Your task to perform on an android device: turn off notifications settings in the gmail app Image 0: 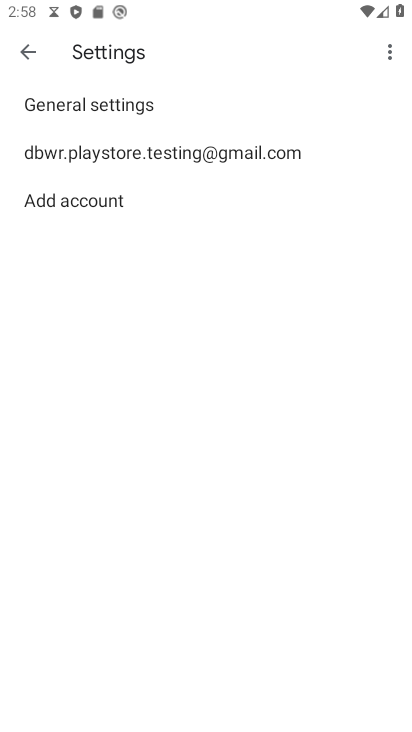
Step 0: drag from (190, 606) to (273, 12)
Your task to perform on an android device: turn off notifications settings in the gmail app Image 1: 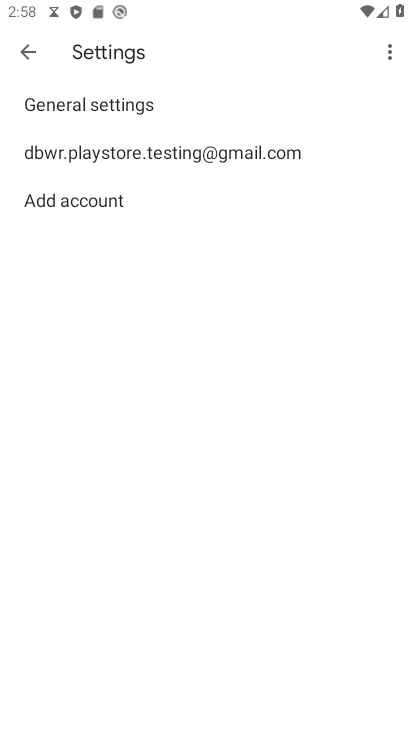
Step 1: click (20, 46)
Your task to perform on an android device: turn off notifications settings in the gmail app Image 2: 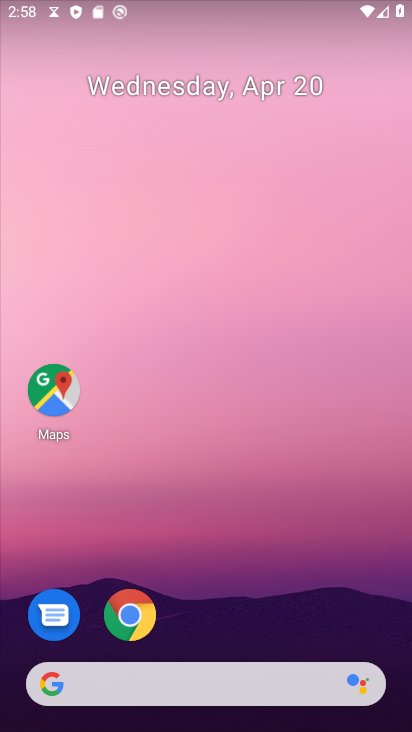
Step 2: drag from (181, 612) to (274, 208)
Your task to perform on an android device: turn off notifications settings in the gmail app Image 3: 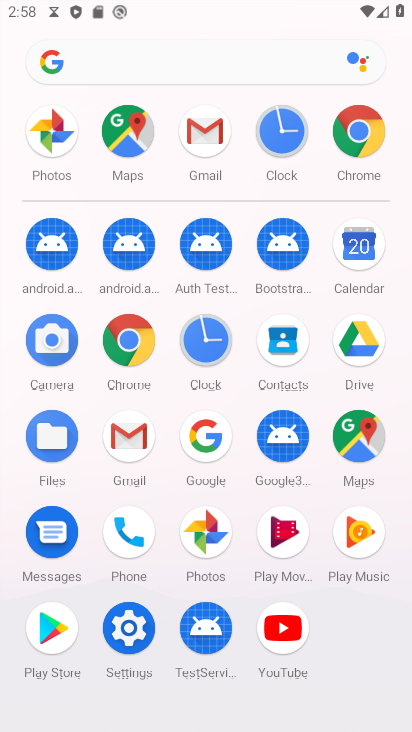
Step 3: click (131, 446)
Your task to perform on an android device: turn off notifications settings in the gmail app Image 4: 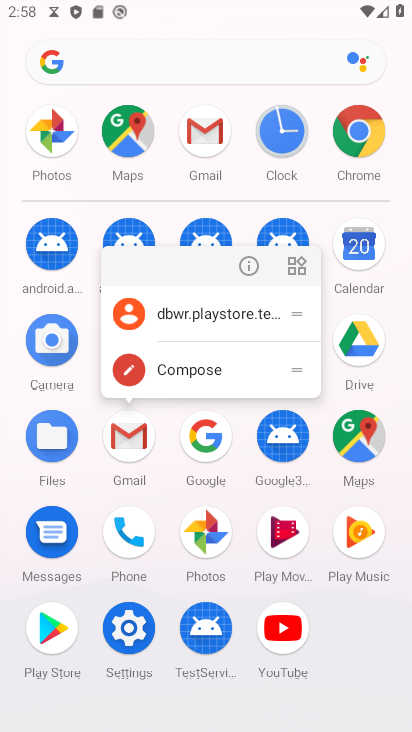
Step 4: click (258, 268)
Your task to perform on an android device: turn off notifications settings in the gmail app Image 5: 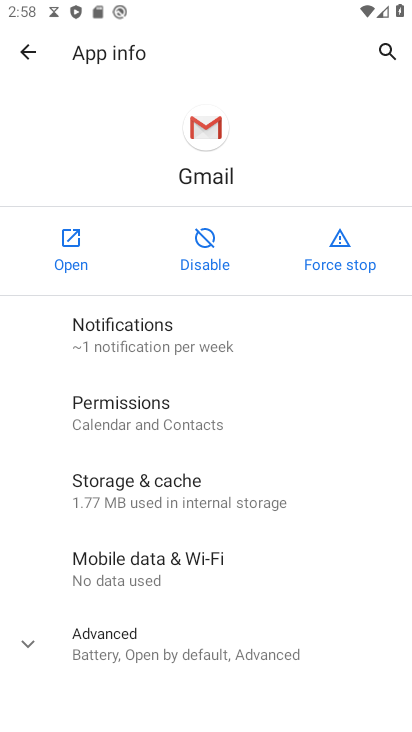
Step 5: click (67, 240)
Your task to perform on an android device: turn off notifications settings in the gmail app Image 6: 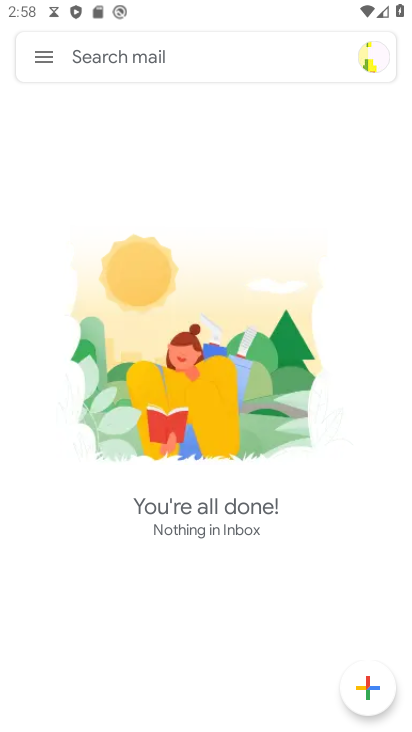
Step 6: click (46, 53)
Your task to perform on an android device: turn off notifications settings in the gmail app Image 7: 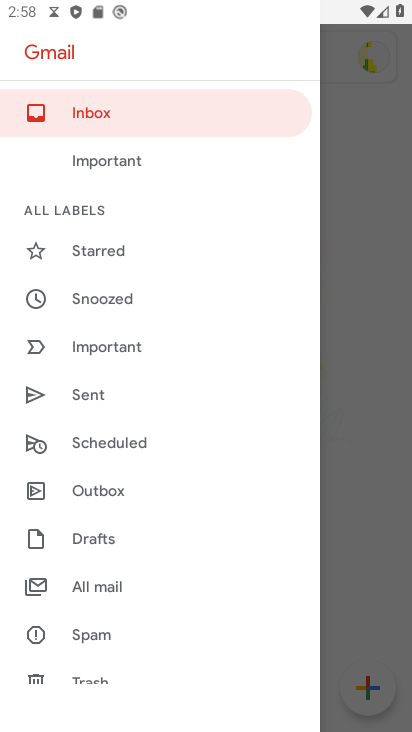
Step 7: drag from (152, 589) to (215, 150)
Your task to perform on an android device: turn off notifications settings in the gmail app Image 8: 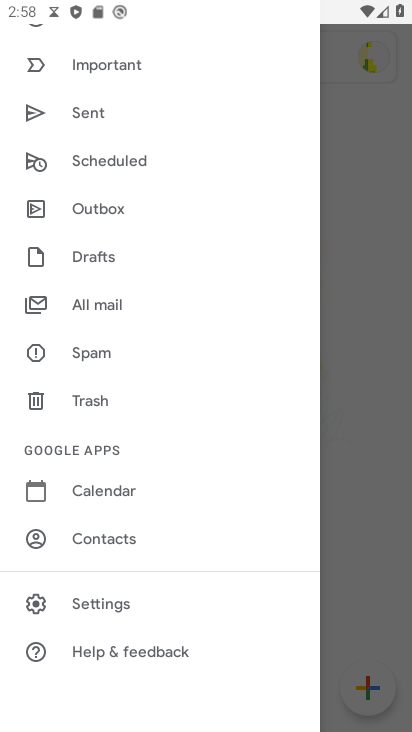
Step 8: click (97, 603)
Your task to perform on an android device: turn off notifications settings in the gmail app Image 9: 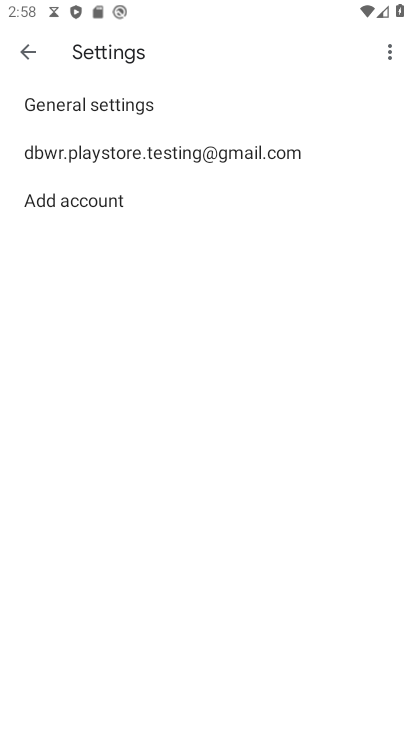
Step 9: click (194, 160)
Your task to perform on an android device: turn off notifications settings in the gmail app Image 10: 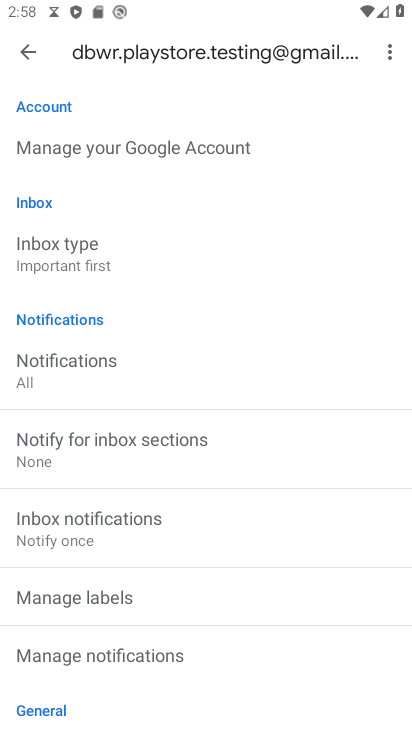
Step 10: click (122, 645)
Your task to perform on an android device: turn off notifications settings in the gmail app Image 11: 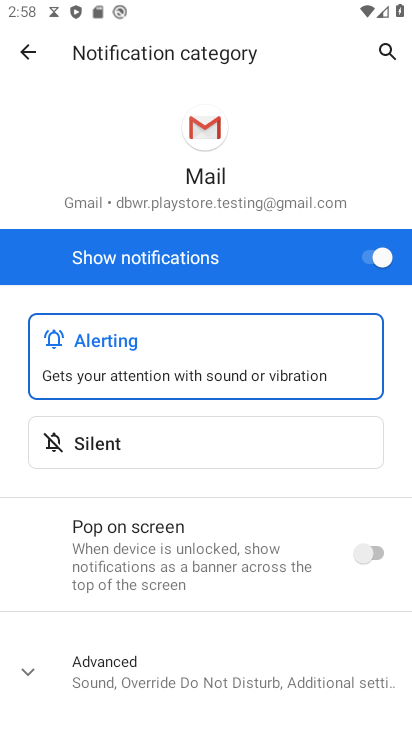
Step 11: click (377, 250)
Your task to perform on an android device: turn off notifications settings in the gmail app Image 12: 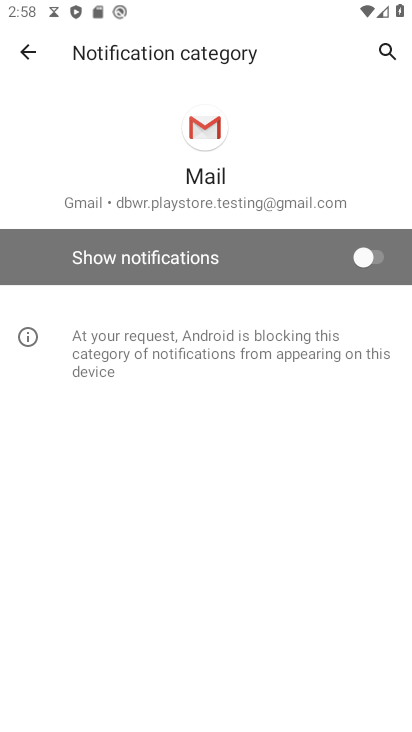
Step 12: task complete